Your task to perform on an android device: stop showing notifications on the lock screen Image 0: 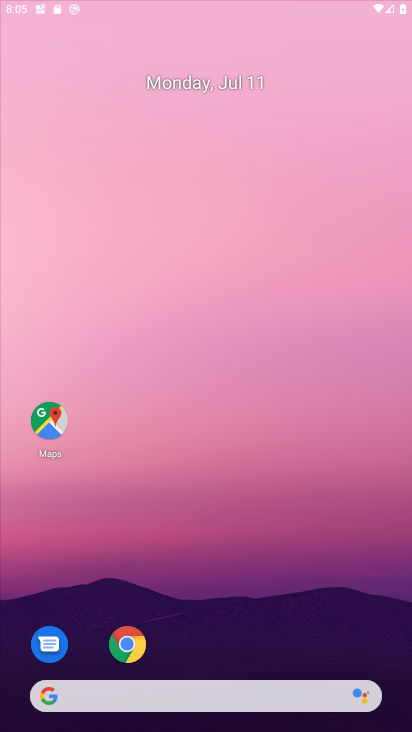
Step 0: drag from (291, 527) to (279, 324)
Your task to perform on an android device: stop showing notifications on the lock screen Image 1: 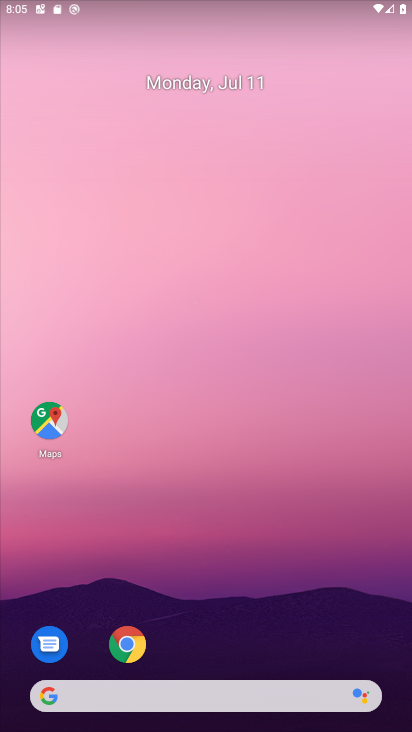
Step 1: drag from (192, 639) to (193, 42)
Your task to perform on an android device: stop showing notifications on the lock screen Image 2: 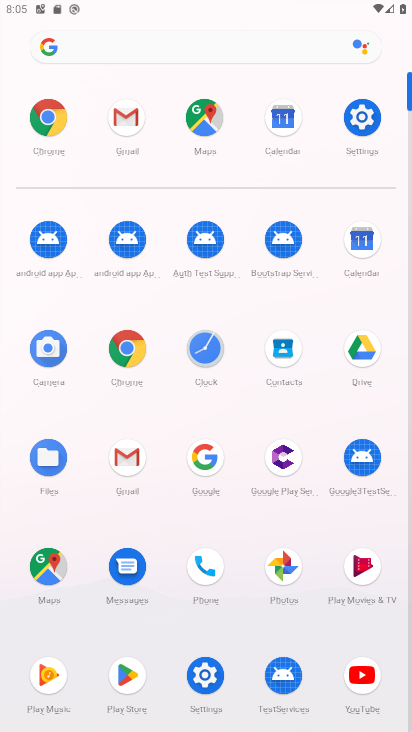
Step 2: click (371, 110)
Your task to perform on an android device: stop showing notifications on the lock screen Image 3: 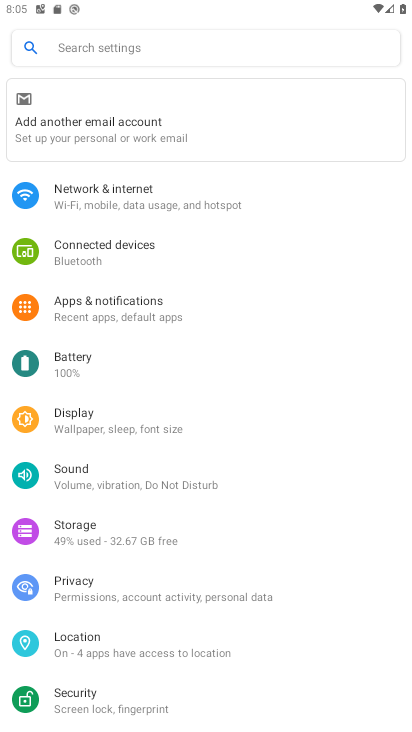
Step 3: click (113, 314)
Your task to perform on an android device: stop showing notifications on the lock screen Image 4: 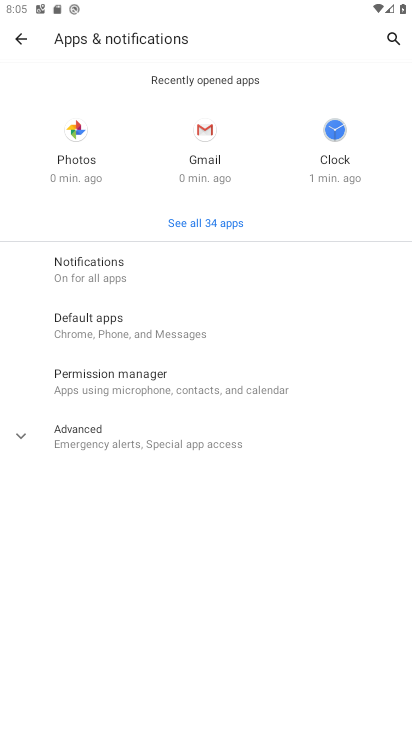
Step 4: click (177, 417)
Your task to perform on an android device: stop showing notifications on the lock screen Image 5: 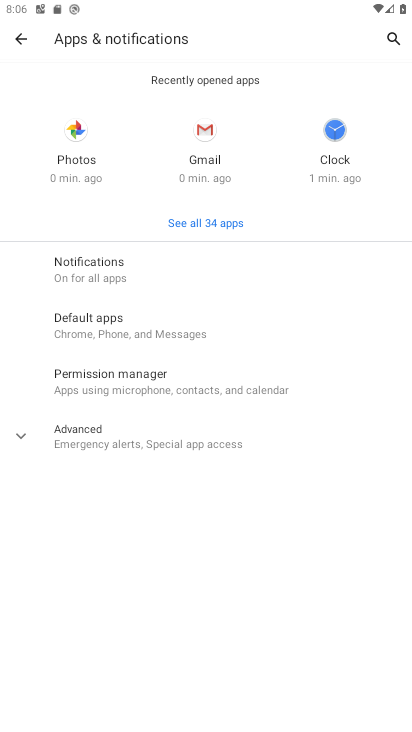
Step 5: click (133, 427)
Your task to perform on an android device: stop showing notifications on the lock screen Image 6: 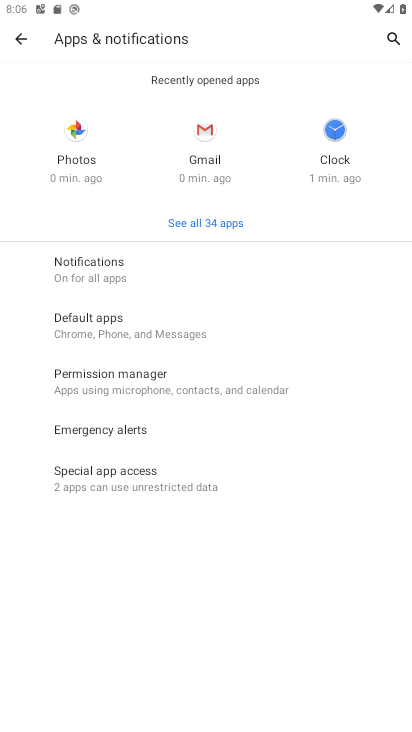
Step 6: click (141, 259)
Your task to perform on an android device: stop showing notifications on the lock screen Image 7: 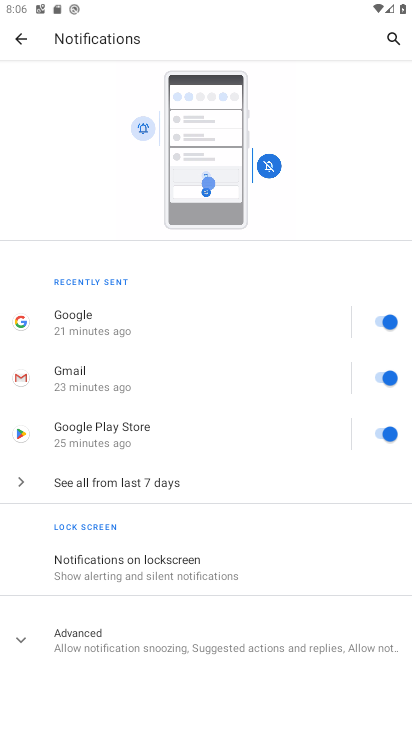
Step 7: click (174, 629)
Your task to perform on an android device: stop showing notifications on the lock screen Image 8: 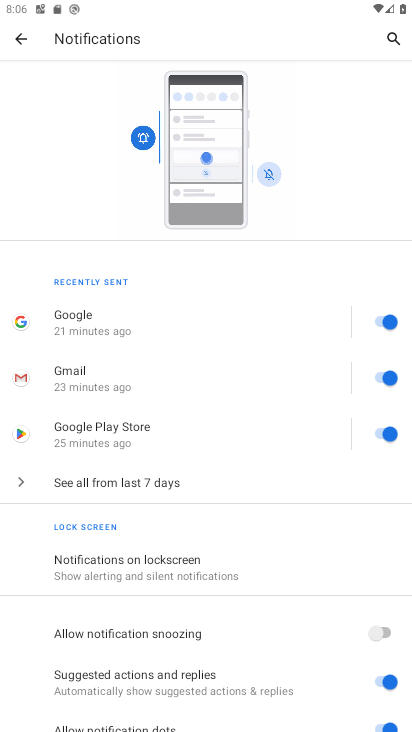
Step 8: click (215, 568)
Your task to perform on an android device: stop showing notifications on the lock screen Image 9: 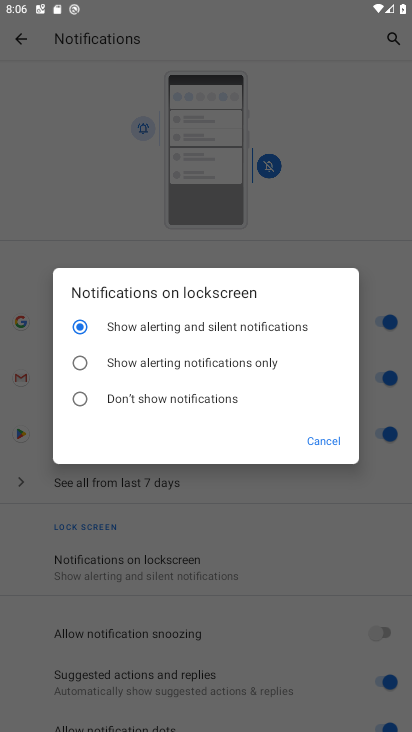
Step 9: click (125, 394)
Your task to perform on an android device: stop showing notifications on the lock screen Image 10: 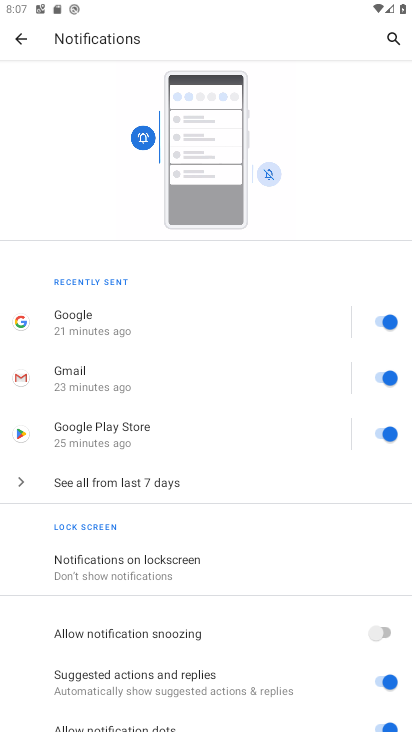
Step 10: task complete